Your task to perform on an android device: Clear the cart on amazon. Search for alienware aurora on amazon, select the first entry, and add it to the cart. Image 0: 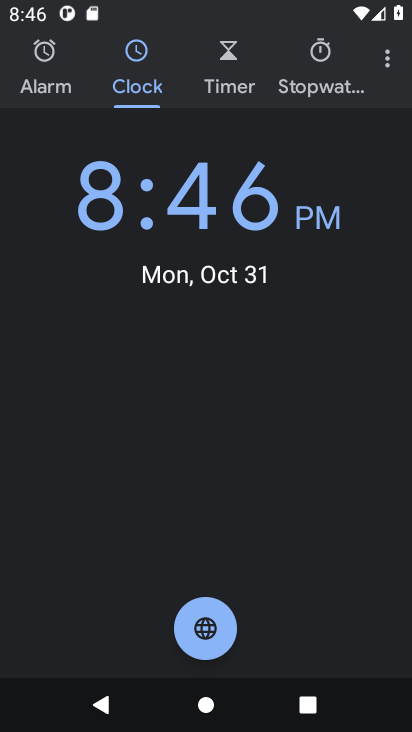
Step 0: press home button
Your task to perform on an android device: Clear the cart on amazon. Search for alienware aurora on amazon, select the first entry, and add it to the cart. Image 1: 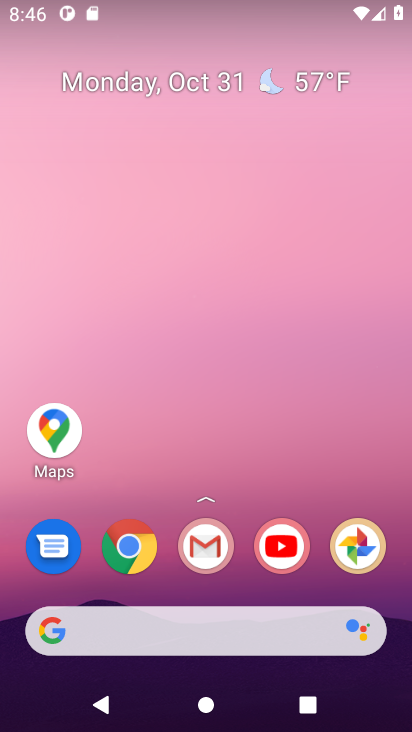
Step 1: click (125, 544)
Your task to perform on an android device: Clear the cart on amazon. Search for alienware aurora on amazon, select the first entry, and add it to the cart. Image 2: 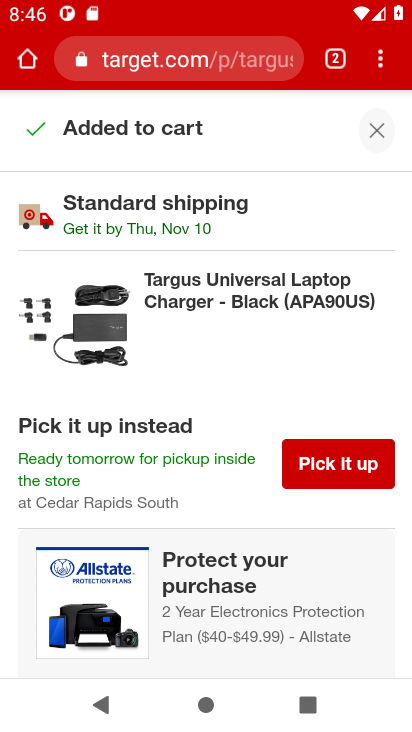
Step 2: click (171, 36)
Your task to perform on an android device: Clear the cart on amazon. Search for alienware aurora on amazon, select the first entry, and add it to the cart. Image 3: 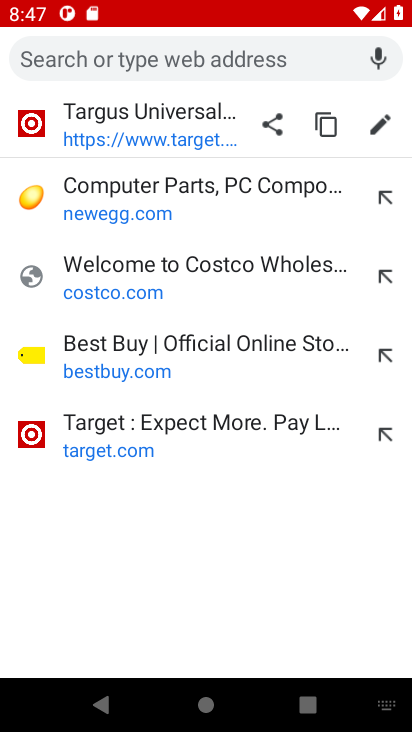
Step 3: type "amazon"
Your task to perform on an android device: Clear the cart on amazon. Search for alienware aurora on amazon, select the first entry, and add it to the cart. Image 4: 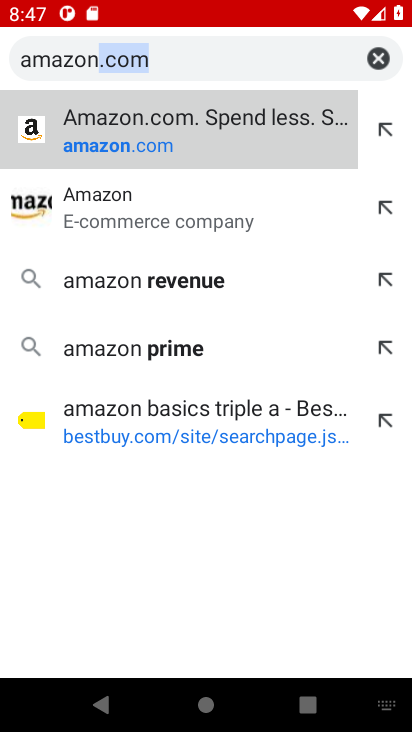
Step 4: click (83, 136)
Your task to perform on an android device: Clear the cart on amazon. Search for alienware aurora on amazon, select the first entry, and add it to the cart. Image 5: 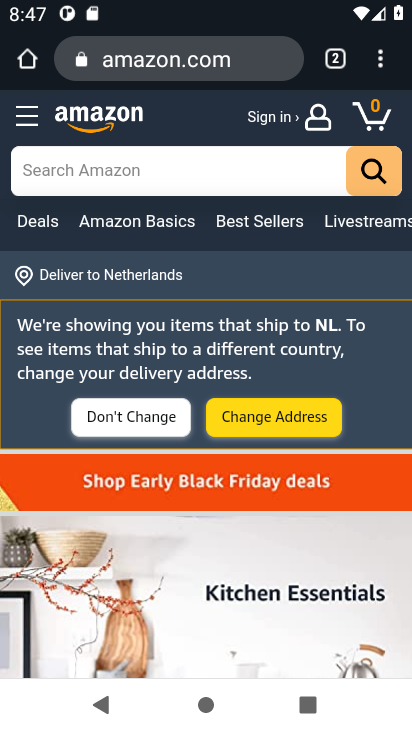
Step 5: click (62, 165)
Your task to perform on an android device: Clear the cart on amazon. Search for alienware aurora on amazon, select the first entry, and add it to the cart. Image 6: 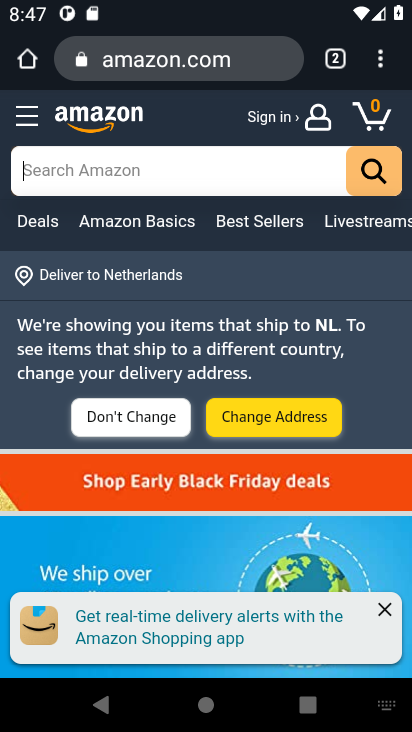
Step 6: type "alienware aurora"
Your task to perform on an android device: Clear the cart on amazon. Search for alienware aurora on amazon, select the first entry, and add it to the cart. Image 7: 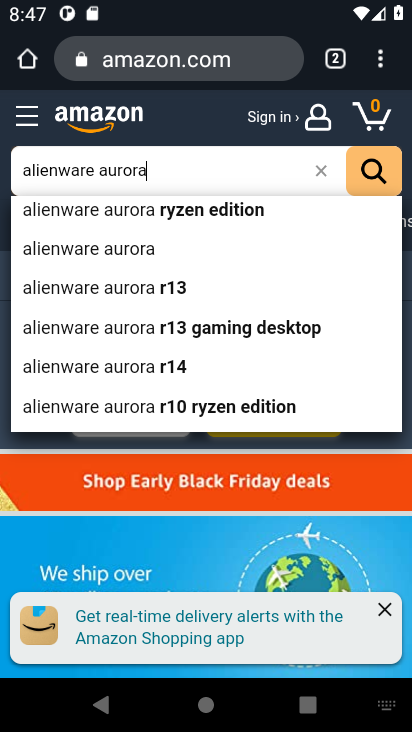
Step 7: click (78, 209)
Your task to perform on an android device: Clear the cart on amazon. Search for alienware aurora on amazon, select the first entry, and add it to the cart. Image 8: 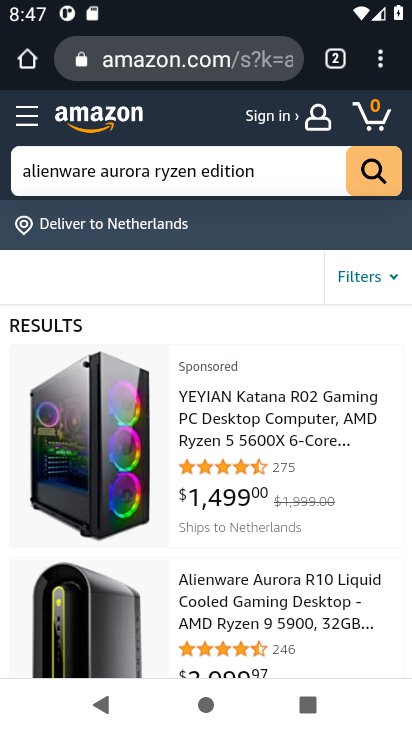
Step 8: click (247, 593)
Your task to perform on an android device: Clear the cart on amazon. Search for alienware aurora on amazon, select the first entry, and add it to the cart. Image 9: 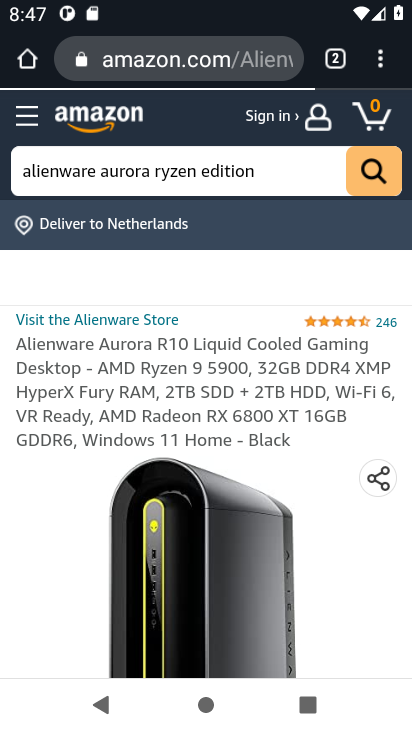
Step 9: drag from (247, 593) to (219, 346)
Your task to perform on an android device: Clear the cart on amazon. Search for alienware aurora on amazon, select the first entry, and add it to the cart. Image 10: 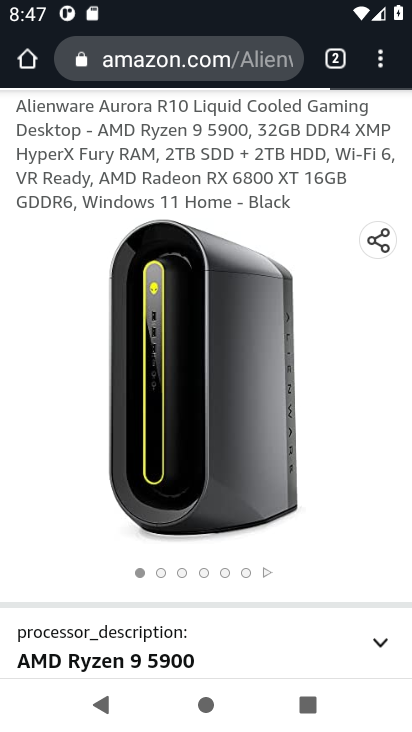
Step 10: drag from (257, 565) to (249, 238)
Your task to perform on an android device: Clear the cart on amazon. Search for alienware aurora on amazon, select the first entry, and add it to the cart. Image 11: 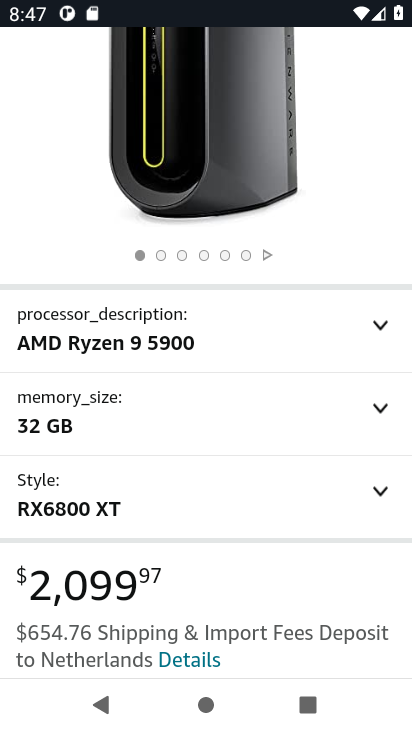
Step 11: drag from (278, 596) to (259, 144)
Your task to perform on an android device: Clear the cart on amazon. Search for alienware aurora on amazon, select the first entry, and add it to the cart. Image 12: 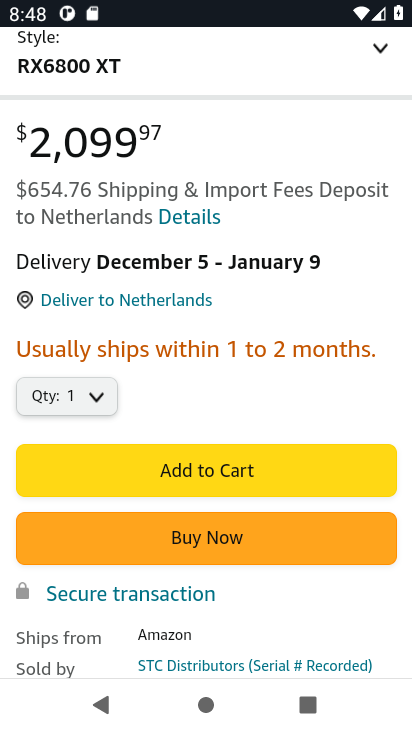
Step 12: click (199, 470)
Your task to perform on an android device: Clear the cart on amazon. Search for alienware aurora on amazon, select the first entry, and add it to the cart. Image 13: 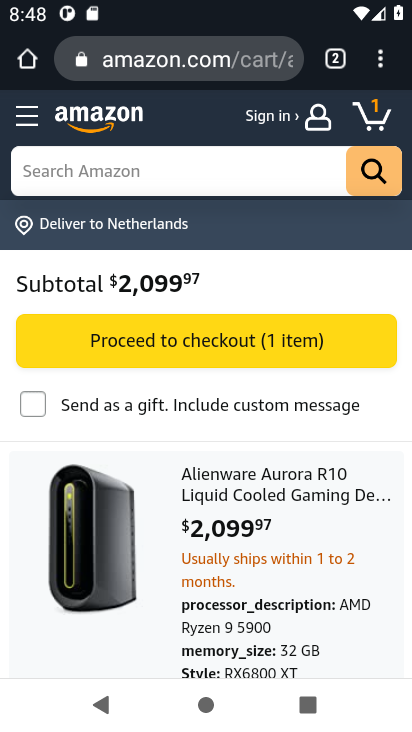
Step 13: task complete